Your task to perform on an android device: set the timer Image 0: 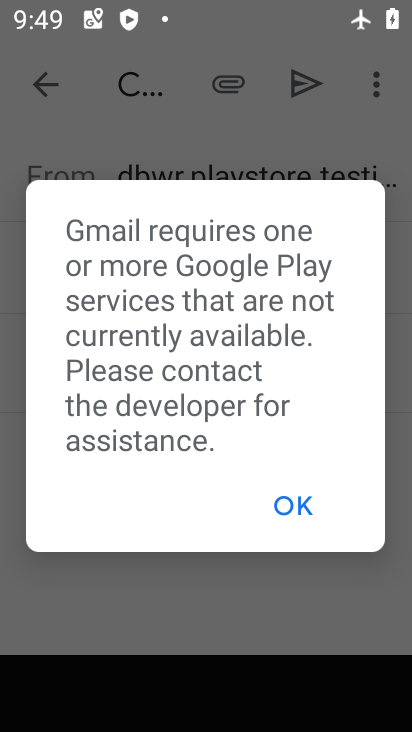
Step 0: drag from (196, 604) to (148, 349)
Your task to perform on an android device: set the timer Image 1: 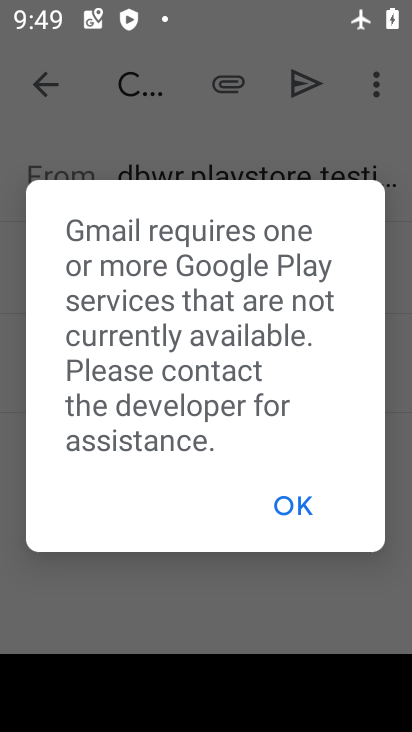
Step 1: click (284, 498)
Your task to perform on an android device: set the timer Image 2: 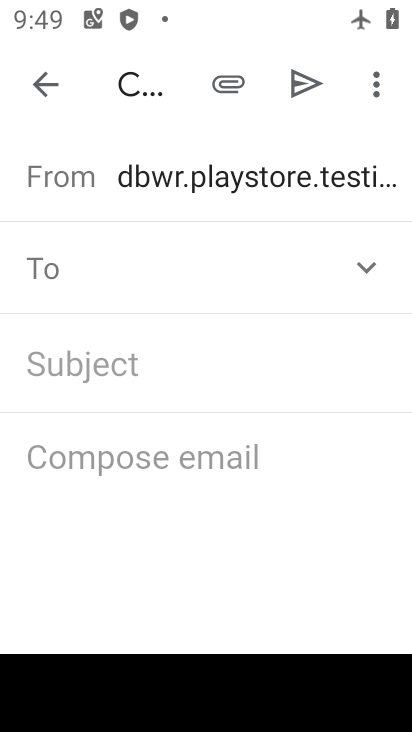
Step 2: press home button
Your task to perform on an android device: set the timer Image 3: 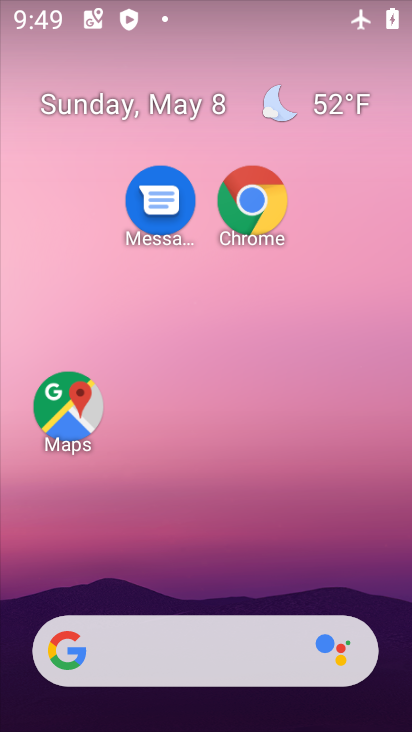
Step 3: drag from (229, 619) to (297, 49)
Your task to perform on an android device: set the timer Image 4: 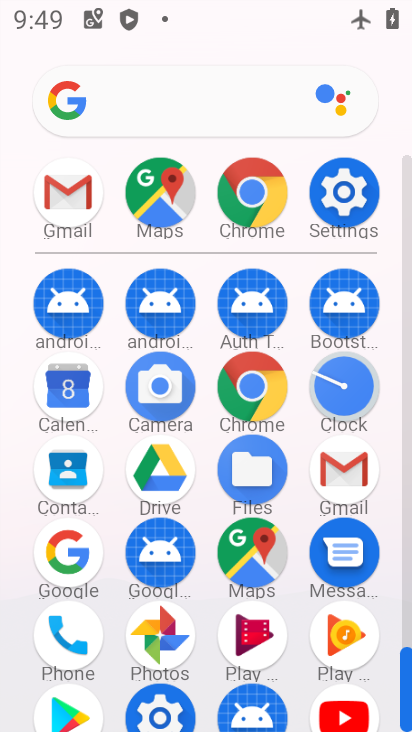
Step 4: click (349, 402)
Your task to perform on an android device: set the timer Image 5: 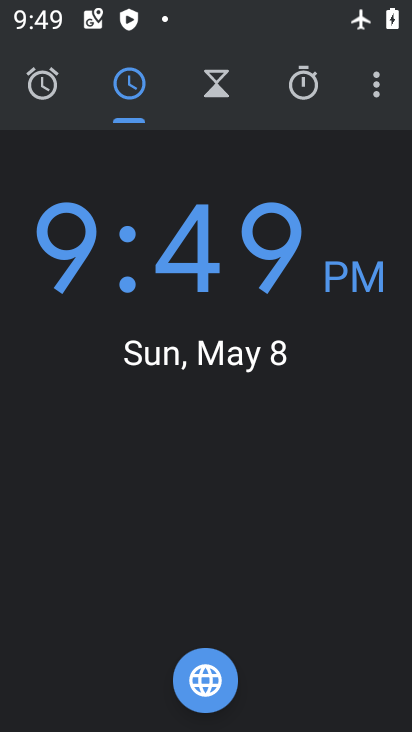
Step 5: click (304, 105)
Your task to perform on an android device: set the timer Image 6: 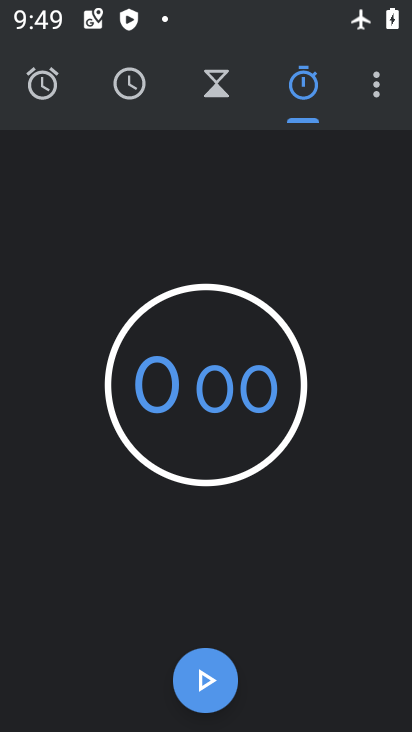
Step 6: click (232, 90)
Your task to perform on an android device: set the timer Image 7: 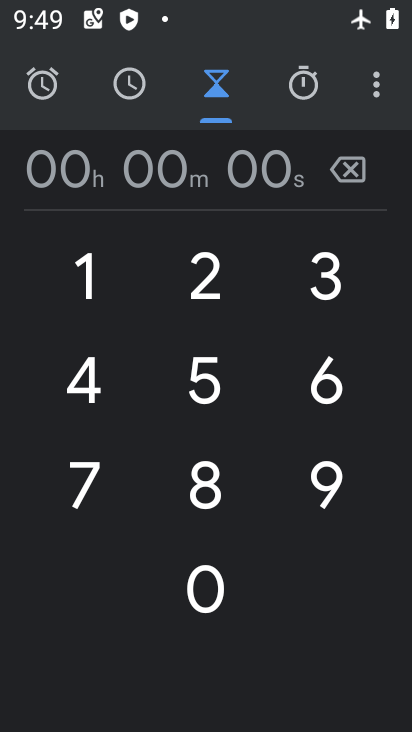
Step 7: click (211, 255)
Your task to perform on an android device: set the timer Image 8: 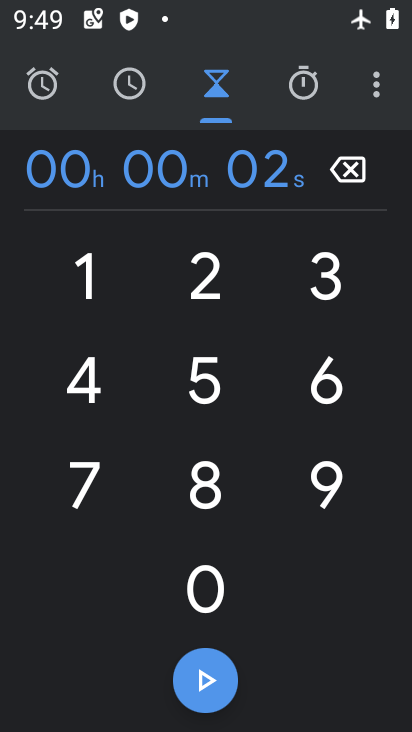
Step 8: click (207, 376)
Your task to perform on an android device: set the timer Image 9: 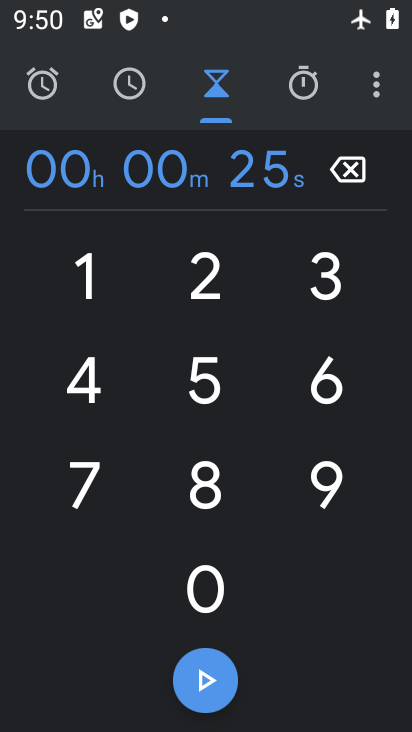
Step 9: click (214, 661)
Your task to perform on an android device: set the timer Image 10: 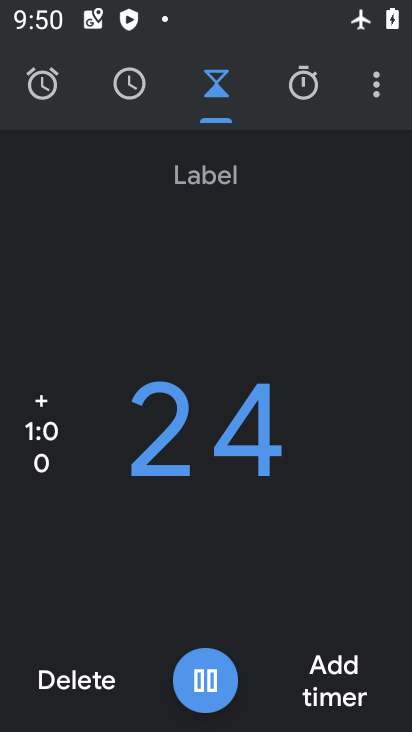
Step 10: click (210, 667)
Your task to perform on an android device: set the timer Image 11: 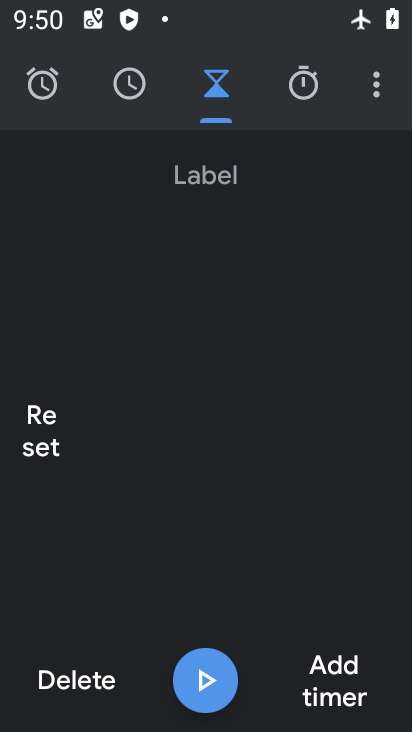
Step 11: task complete